Your task to perform on an android device: check battery use Image 0: 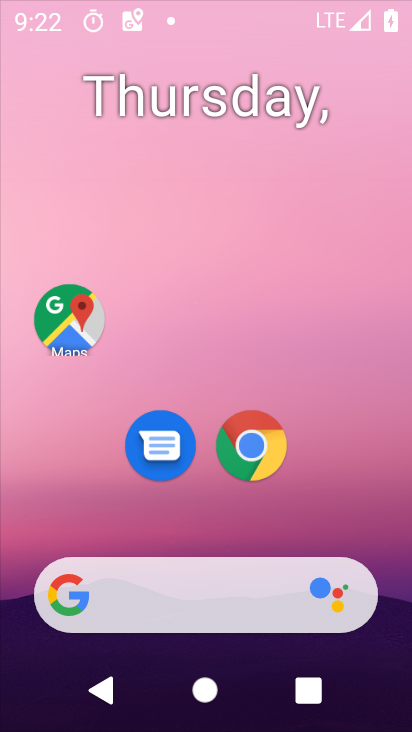
Step 0: drag from (213, 499) to (210, 286)
Your task to perform on an android device: check battery use Image 1: 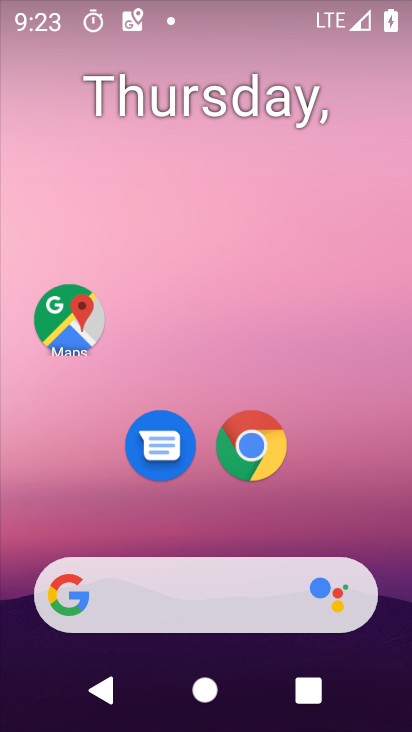
Step 1: drag from (196, 512) to (206, 260)
Your task to perform on an android device: check battery use Image 2: 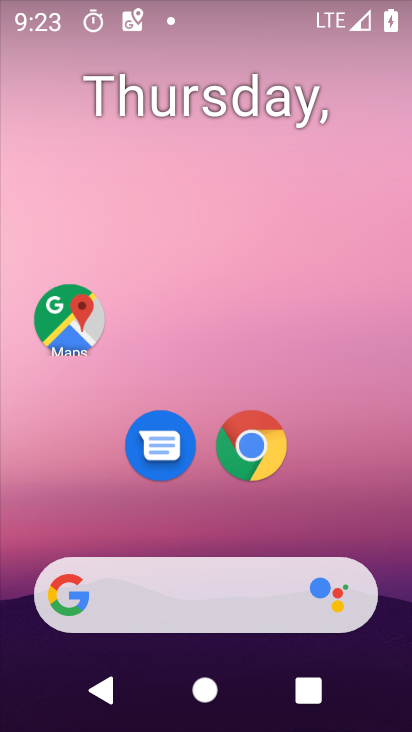
Step 2: drag from (207, 480) to (204, 230)
Your task to perform on an android device: check battery use Image 3: 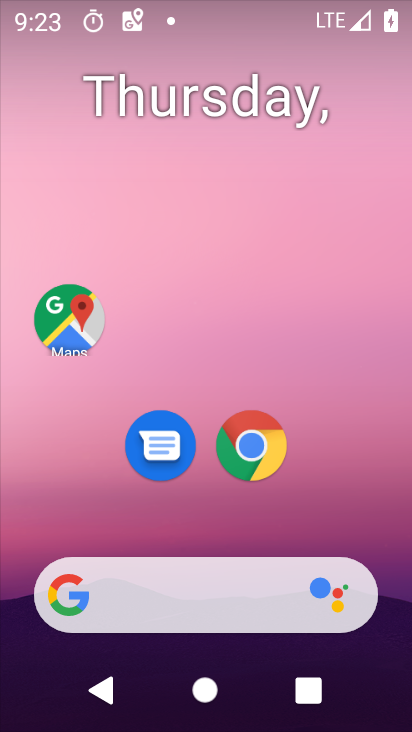
Step 3: drag from (201, 520) to (191, 216)
Your task to perform on an android device: check battery use Image 4: 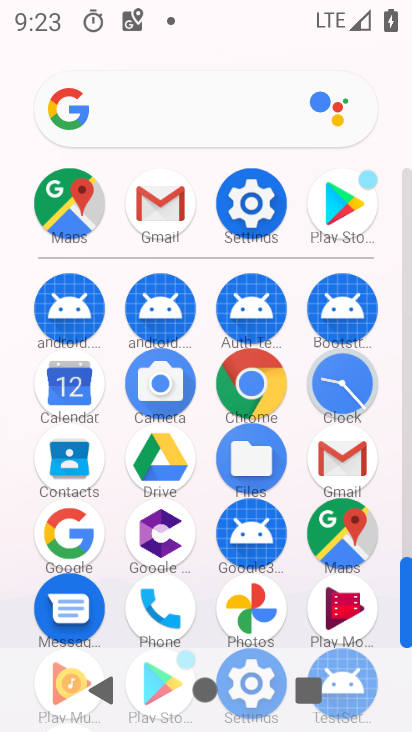
Step 4: click (249, 198)
Your task to perform on an android device: check battery use Image 5: 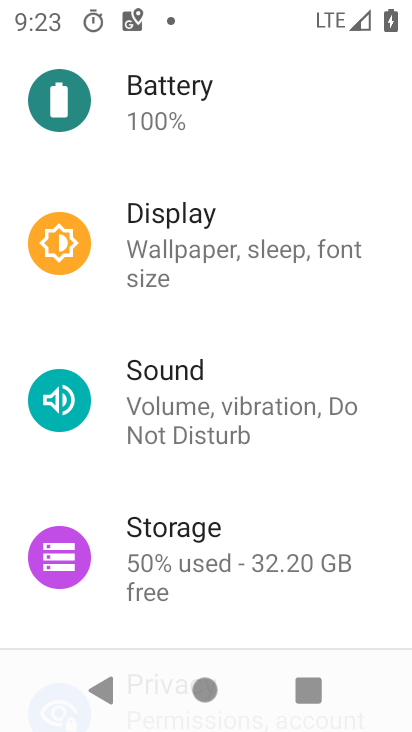
Step 5: click (198, 133)
Your task to perform on an android device: check battery use Image 6: 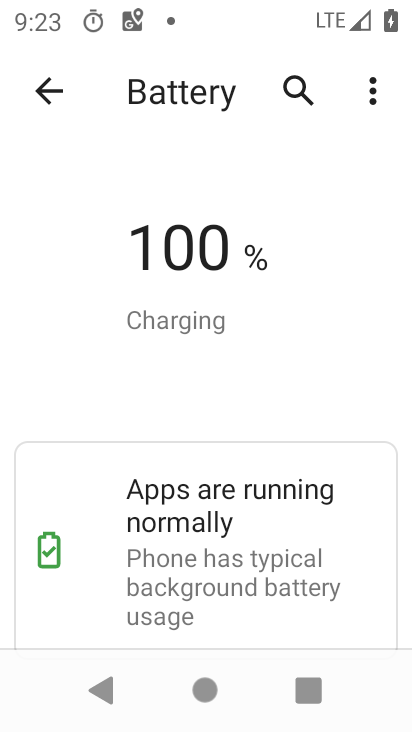
Step 6: click (373, 93)
Your task to perform on an android device: check battery use Image 7: 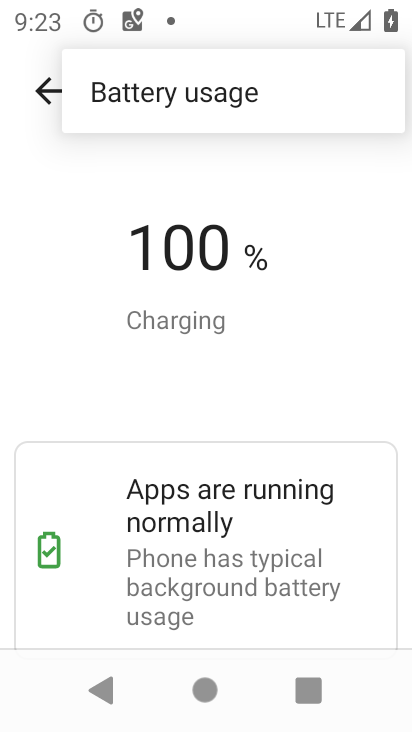
Step 7: click (265, 101)
Your task to perform on an android device: check battery use Image 8: 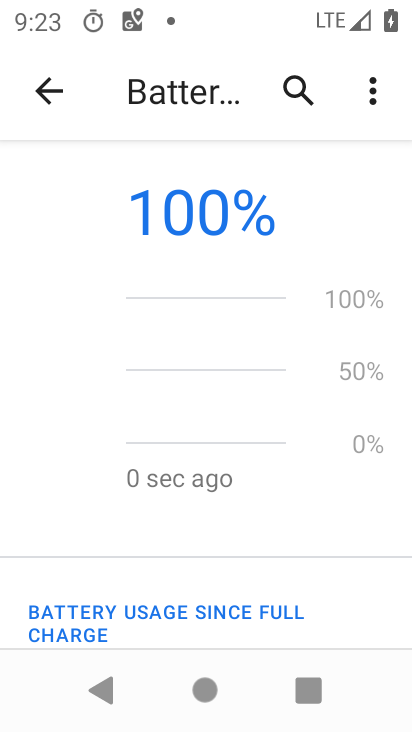
Step 8: drag from (199, 531) to (232, 315)
Your task to perform on an android device: check battery use Image 9: 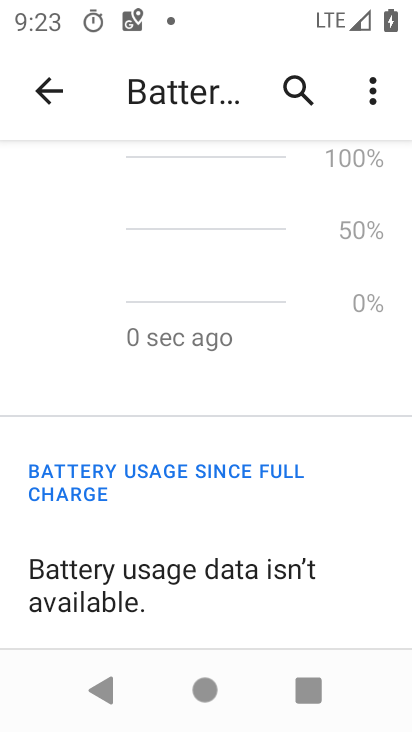
Step 9: drag from (159, 550) to (164, 317)
Your task to perform on an android device: check battery use Image 10: 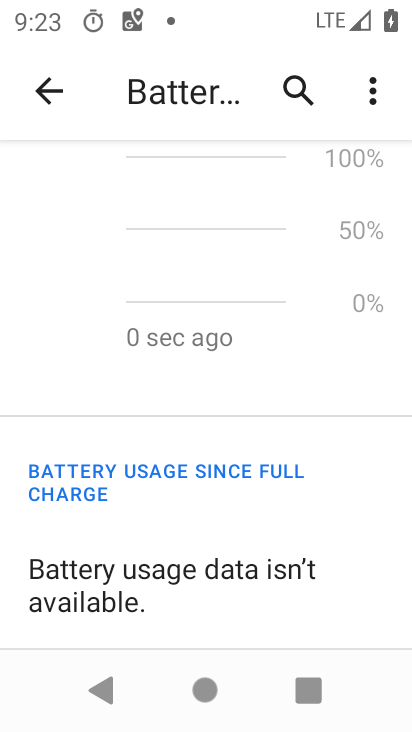
Step 10: drag from (201, 631) to (211, 223)
Your task to perform on an android device: check battery use Image 11: 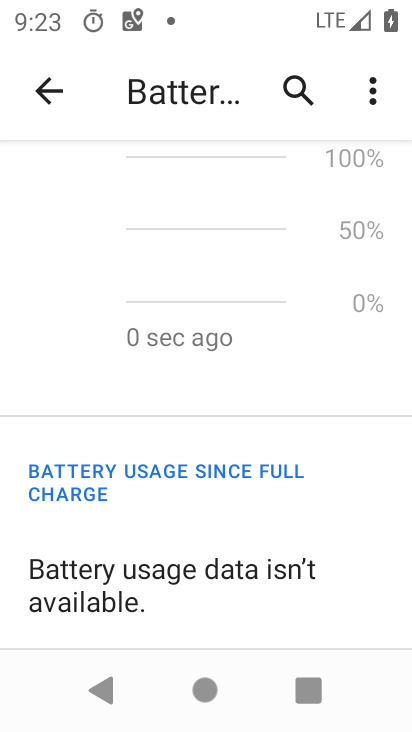
Step 11: drag from (193, 564) to (240, 303)
Your task to perform on an android device: check battery use Image 12: 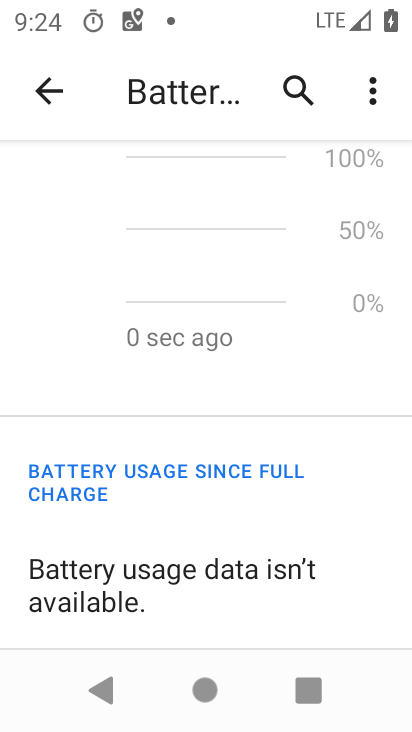
Step 12: drag from (226, 537) to (236, 264)
Your task to perform on an android device: check battery use Image 13: 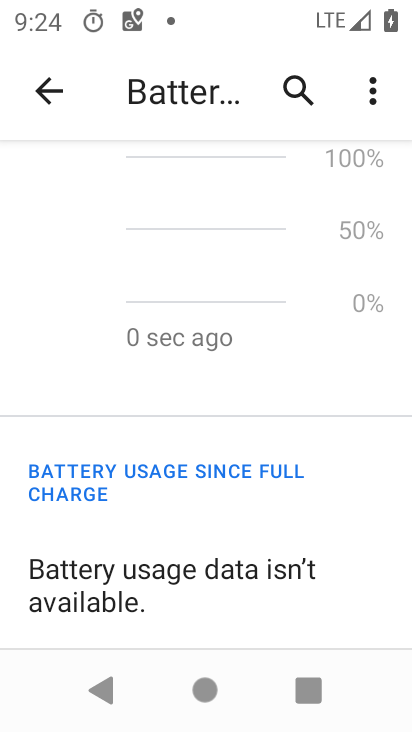
Step 13: click (385, 104)
Your task to perform on an android device: check battery use Image 14: 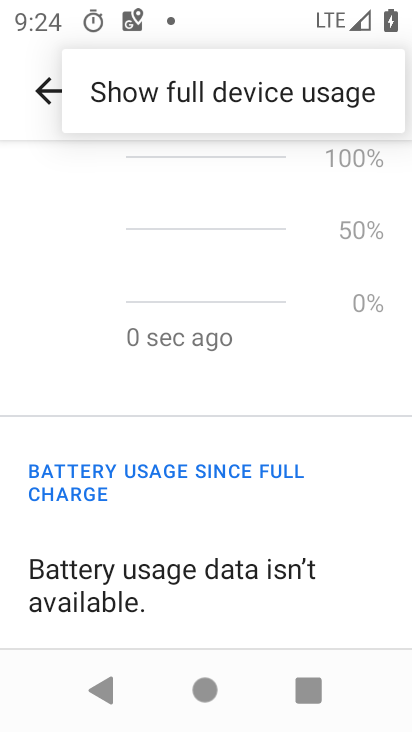
Step 14: task complete